Your task to perform on an android device: clear history in the chrome app Image 0: 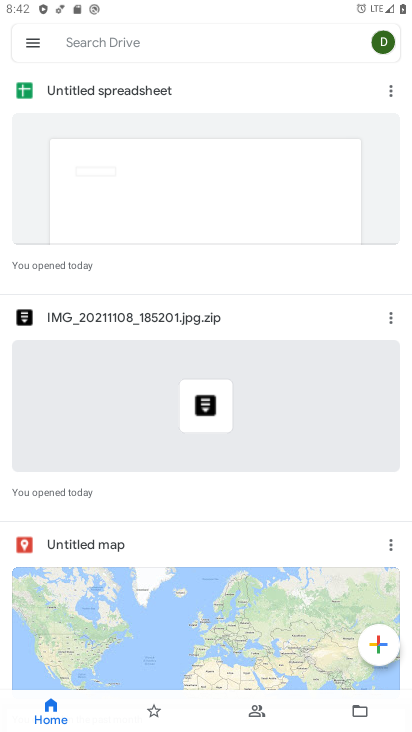
Step 0: press home button
Your task to perform on an android device: clear history in the chrome app Image 1: 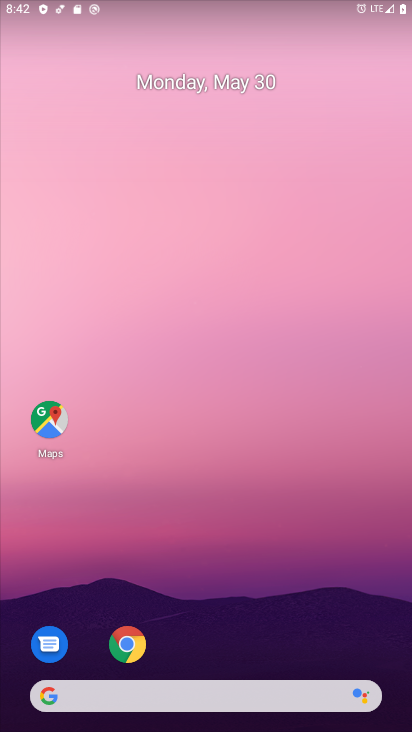
Step 1: click (130, 644)
Your task to perform on an android device: clear history in the chrome app Image 2: 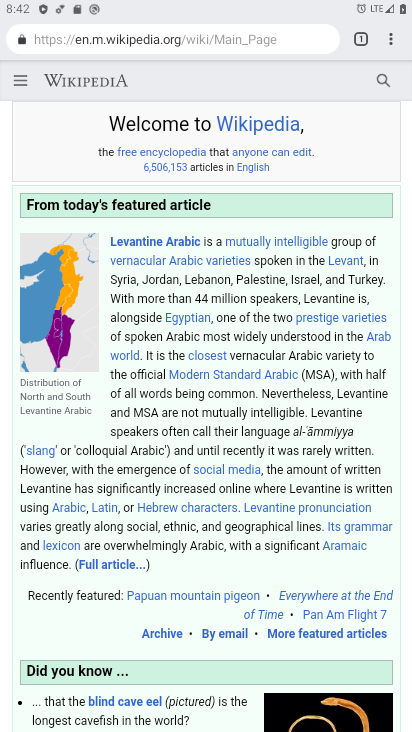
Step 2: click (390, 45)
Your task to perform on an android device: clear history in the chrome app Image 3: 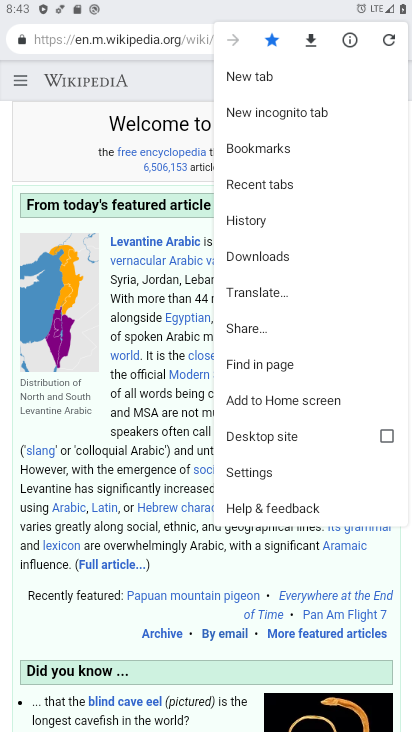
Step 3: click (252, 215)
Your task to perform on an android device: clear history in the chrome app Image 4: 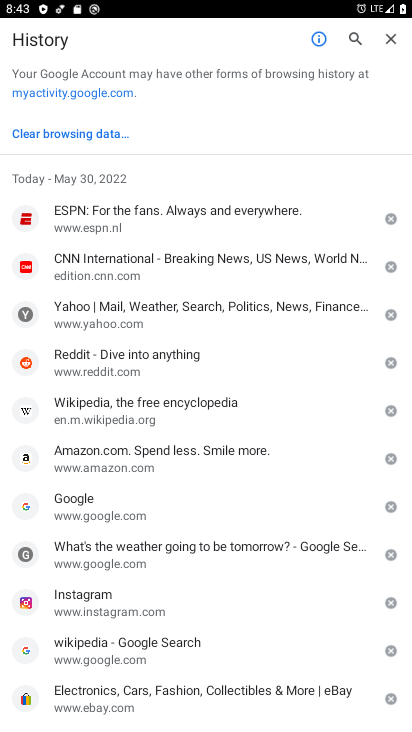
Step 4: click (50, 120)
Your task to perform on an android device: clear history in the chrome app Image 5: 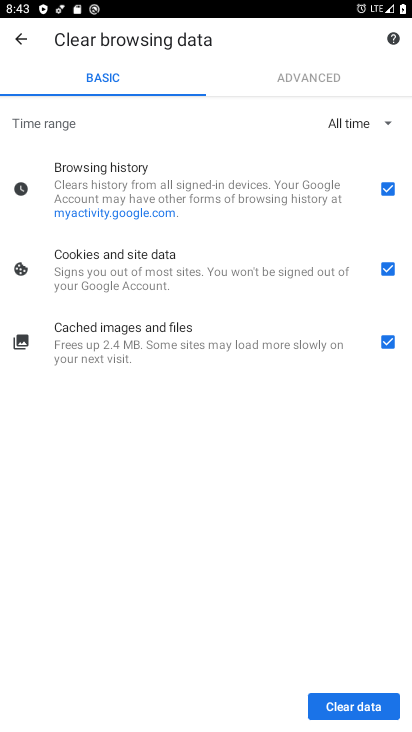
Step 5: click (390, 265)
Your task to perform on an android device: clear history in the chrome app Image 6: 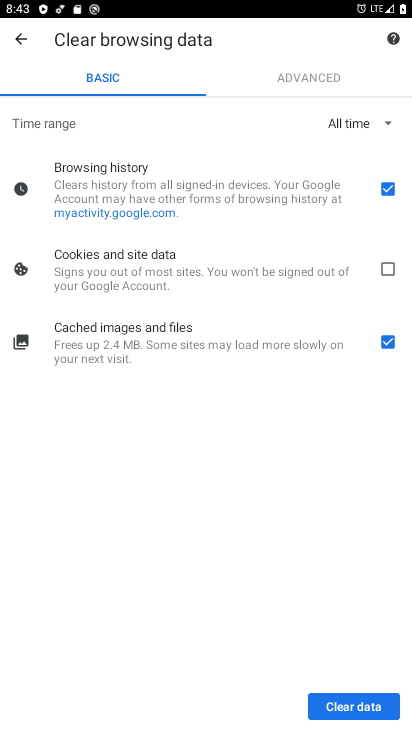
Step 6: click (390, 345)
Your task to perform on an android device: clear history in the chrome app Image 7: 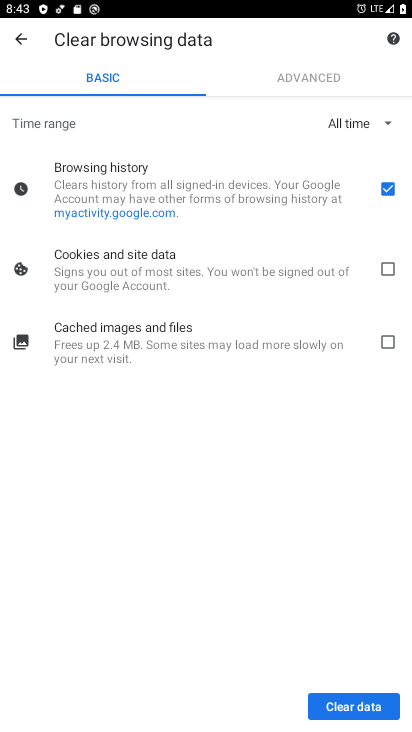
Step 7: click (353, 702)
Your task to perform on an android device: clear history in the chrome app Image 8: 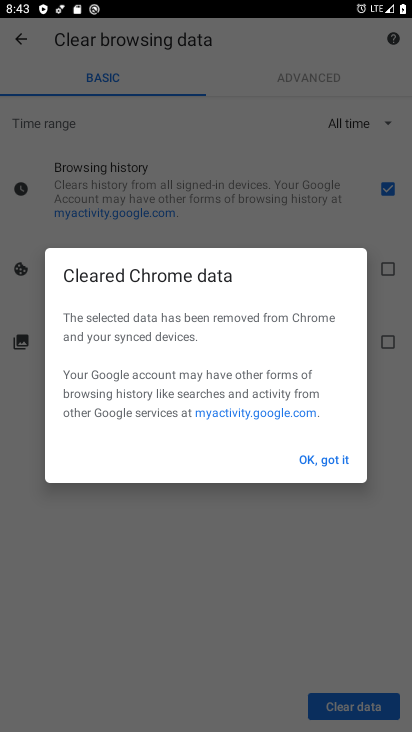
Step 8: click (327, 457)
Your task to perform on an android device: clear history in the chrome app Image 9: 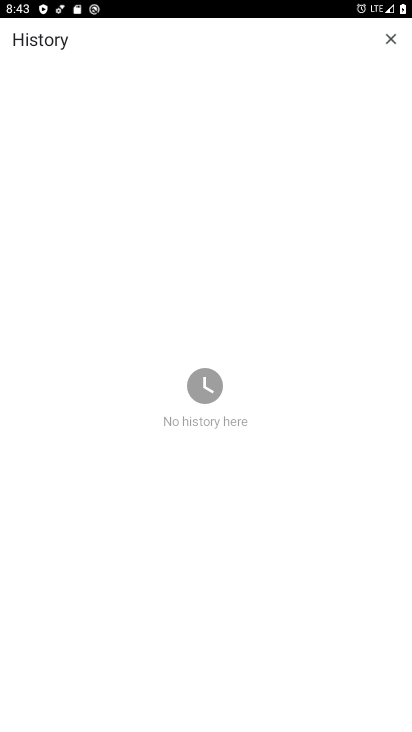
Step 9: task complete